Your task to perform on an android device: check storage Image 0: 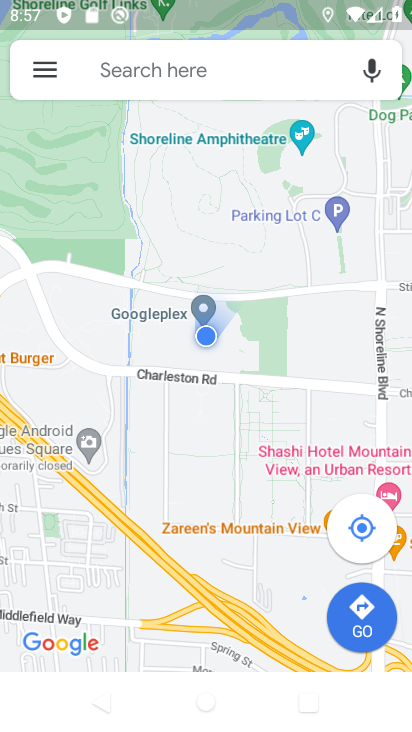
Step 0: press home button
Your task to perform on an android device: check storage Image 1: 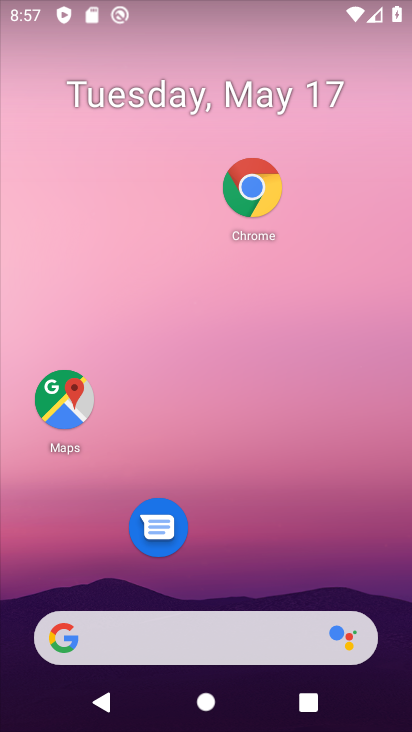
Step 1: drag from (237, 514) to (252, 39)
Your task to perform on an android device: check storage Image 2: 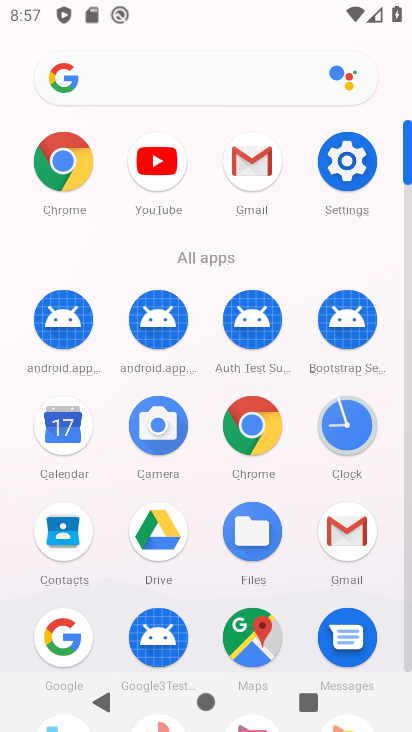
Step 2: click (327, 151)
Your task to perform on an android device: check storage Image 3: 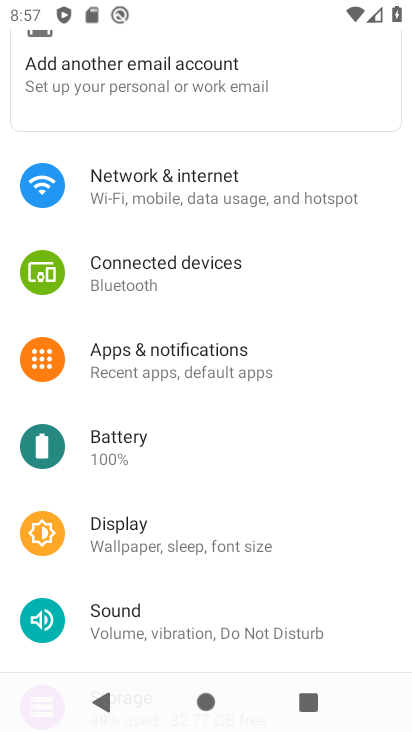
Step 3: drag from (141, 546) to (203, 290)
Your task to perform on an android device: check storage Image 4: 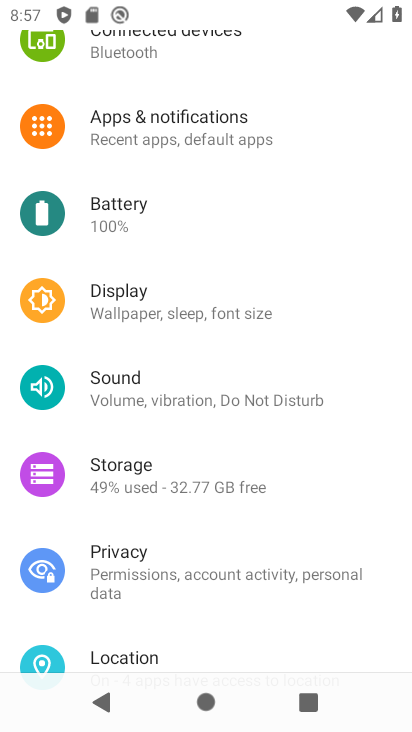
Step 4: click (198, 508)
Your task to perform on an android device: check storage Image 5: 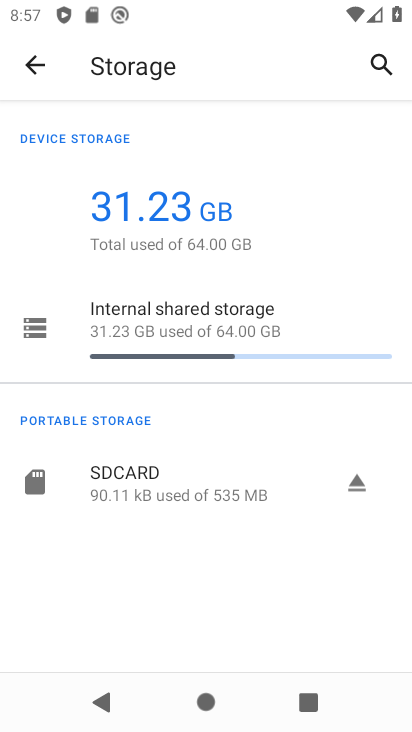
Step 5: task complete